Your task to perform on an android device: turn on the 24-hour format for clock Image 0: 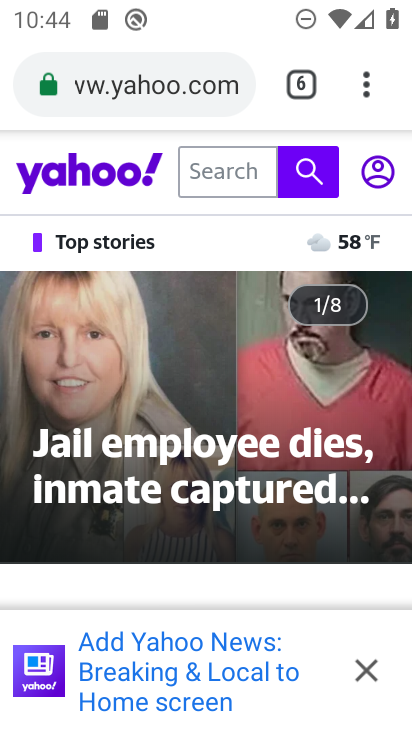
Step 0: press home button
Your task to perform on an android device: turn on the 24-hour format for clock Image 1: 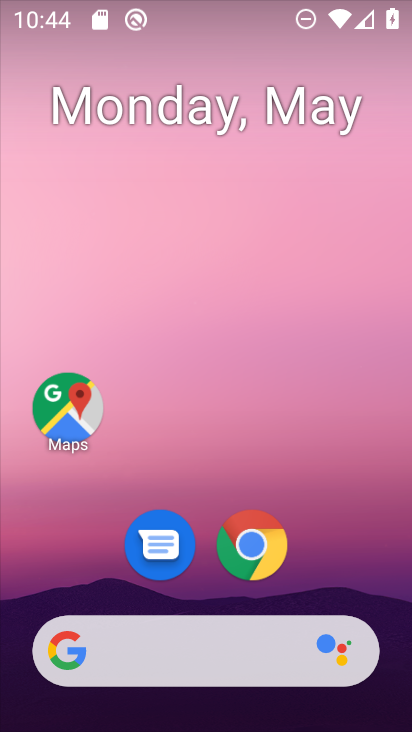
Step 1: drag from (335, 468) to (172, 35)
Your task to perform on an android device: turn on the 24-hour format for clock Image 2: 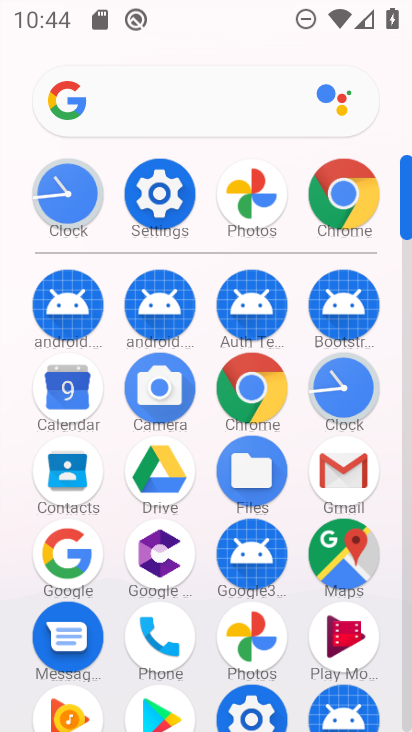
Step 2: click (347, 386)
Your task to perform on an android device: turn on the 24-hour format for clock Image 3: 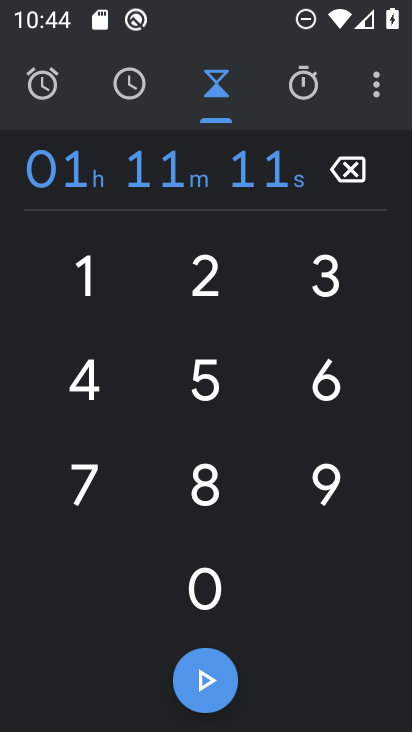
Step 3: click (375, 83)
Your task to perform on an android device: turn on the 24-hour format for clock Image 4: 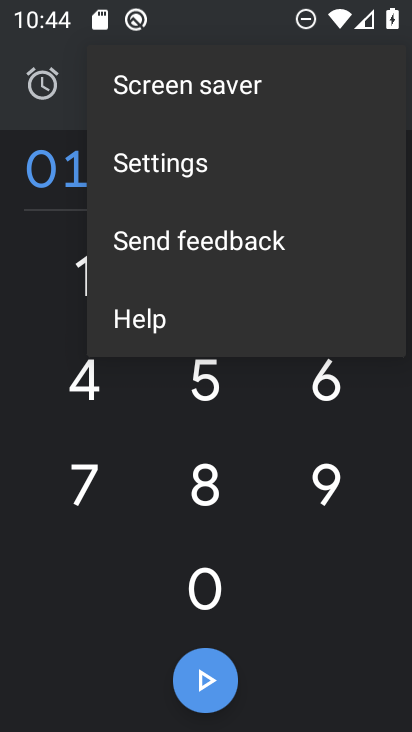
Step 4: click (191, 165)
Your task to perform on an android device: turn on the 24-hour format for clock Image 5: 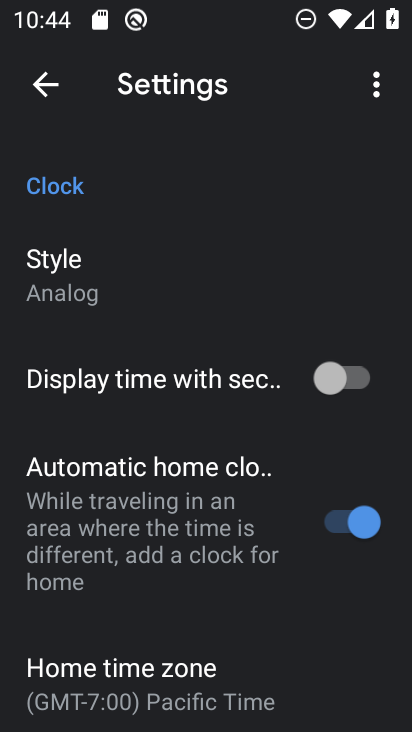
Step 5: drag from (288, 596) to (232, 211)
Your task to perform on an android device: turn on the 24-hour format for clock Image 6: 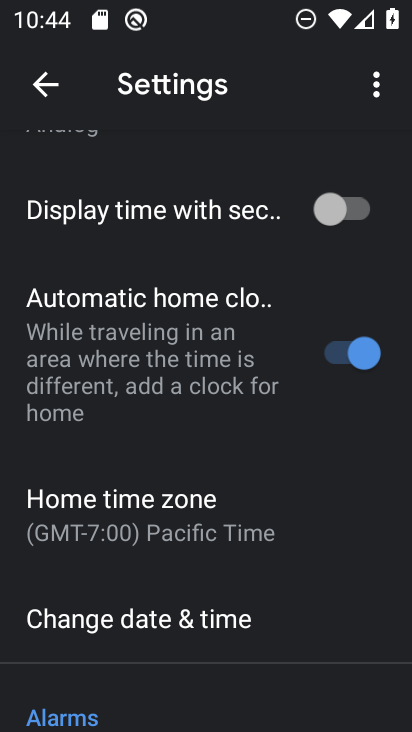
Step 6: click (178, 608)
Your task to perform on an android device: turn on the 24-hour format for clock Image 7: 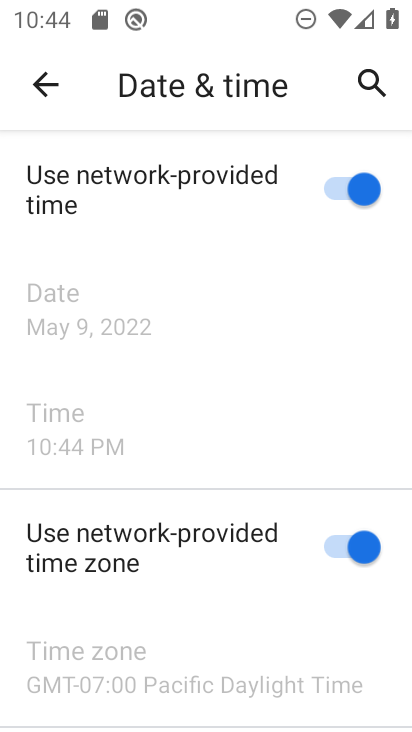
Step 7: drag from (208, 603) to (134, 153)
Your task to perform on an android device: turn on the 24-hour format for clock Image 8: 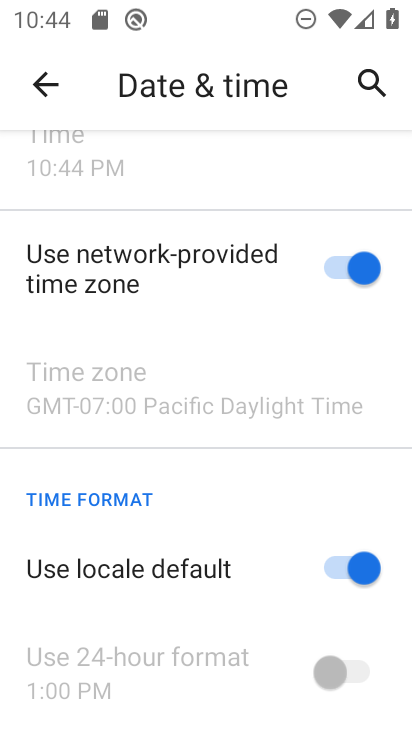
Step 8: click (356, 563)
Your task to perform on an android device: turn on the 24-hour format for clock Image 9: 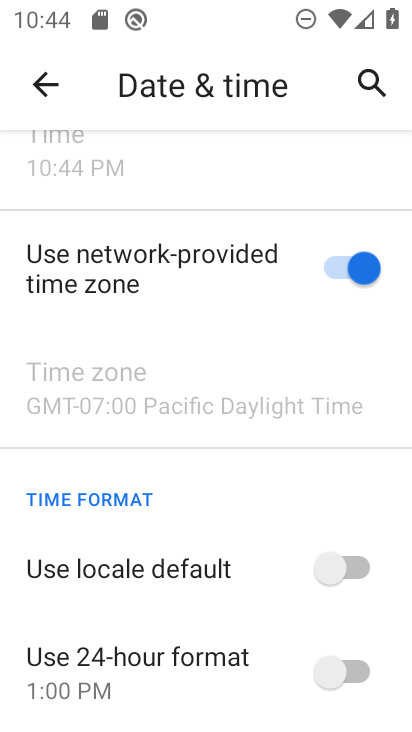
Step 9: click (340, 675)
Your task to perform on an android device: turn on the 24-hour format for clock Image 10: 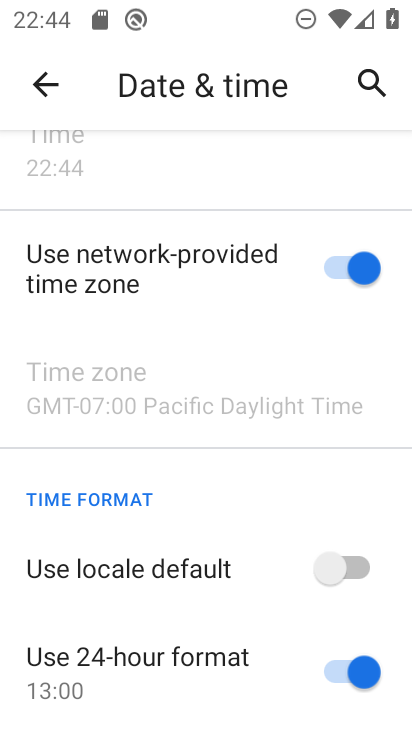
Step 10: task complete